Your task to perform on an android device: change your default location settings in chrome Image 0: 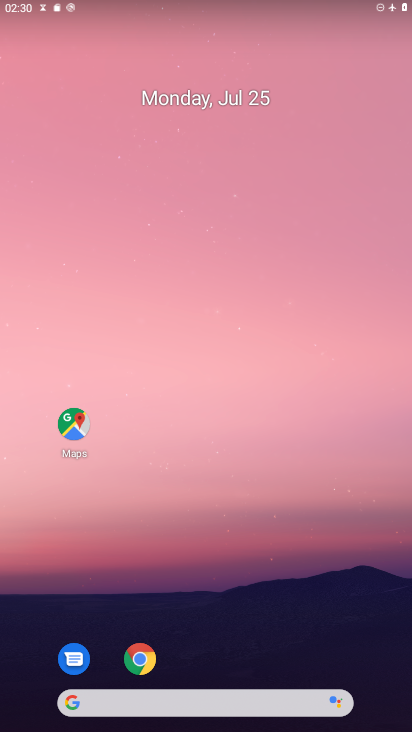
Step 0: drag from (242, 560) to (242, 135)
Your task to perform on an android device: change your default location settings in chrome Image 1: 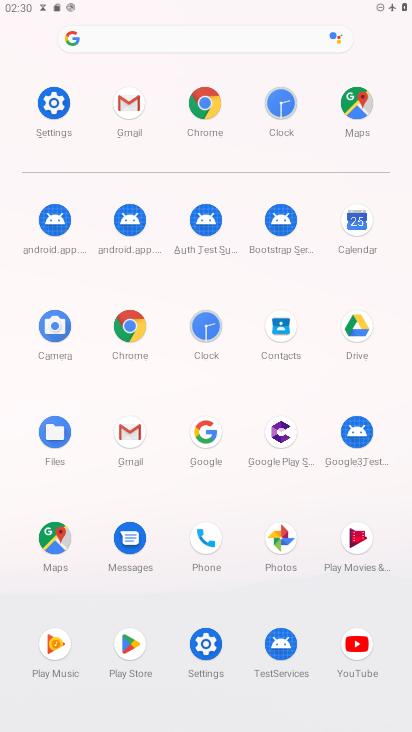
Step 1: click (204, 89)
Your task to perform on an android device: change your default location settings in chrome Image 2: 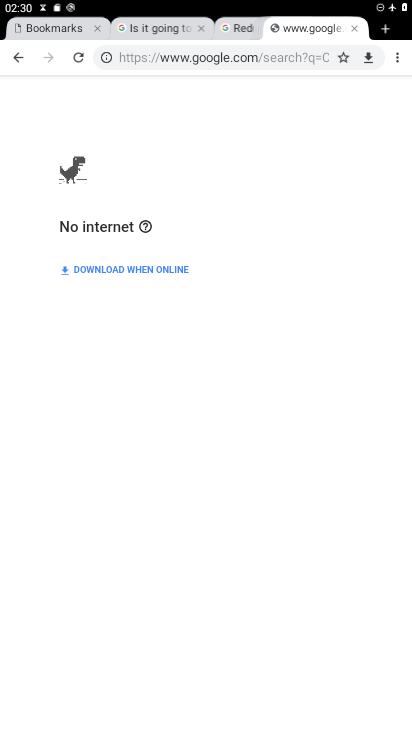
Step 2: click (397, 56)
Your task to perform on an android device: change your default location settings in chrome Image 3: 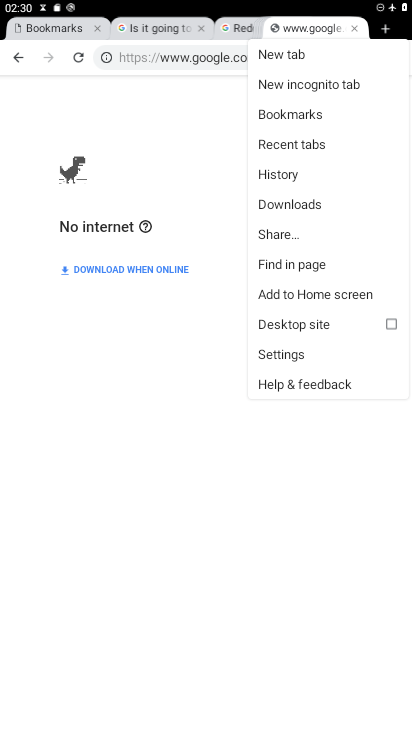
Step 3: click (294, 346)
Your task to perform on an android device: change your default location settings in chrome Image 4: 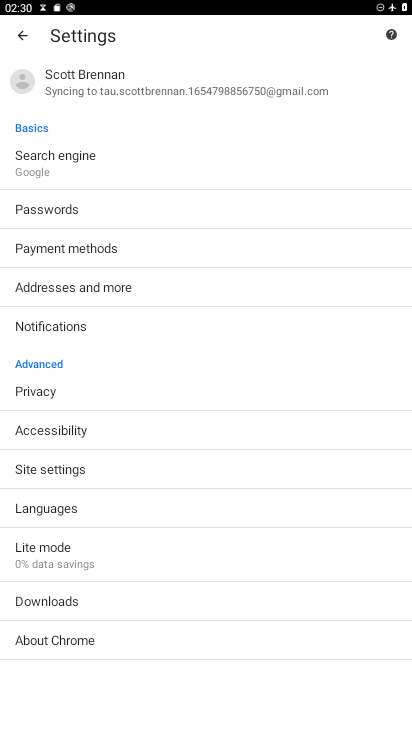
Step 4: click (86, 463)
Your task to perform on an android device: change your default location settings in chrome Image 5: 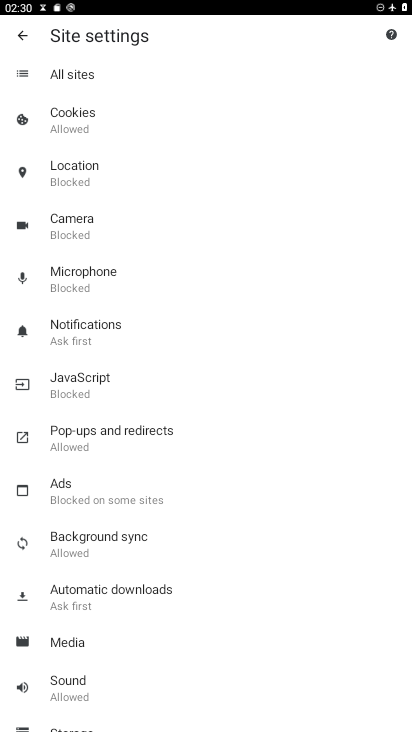
Step 5: click (83, 177)
Your task to perform on an android device: change your default location settings in chrome Image 6: 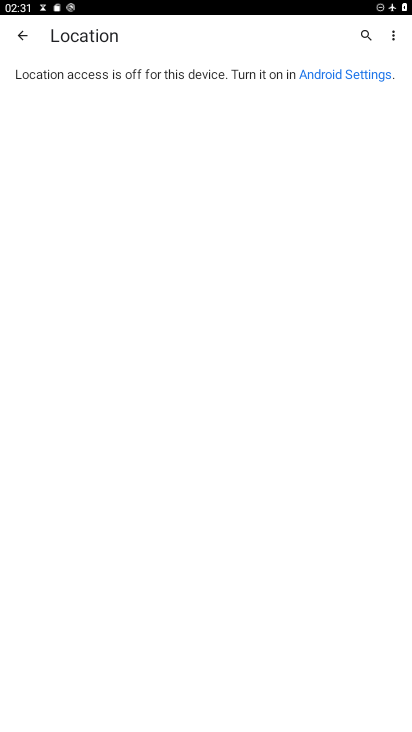
Step 6: task complete